Your task to perform on an android device: Open sound settings Image 0: 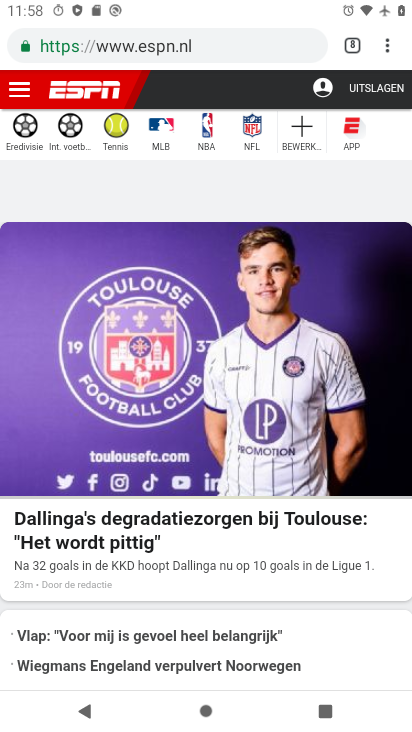
Step 0: press home button
Your task to perform on an android device: Open sound settings Image 1: 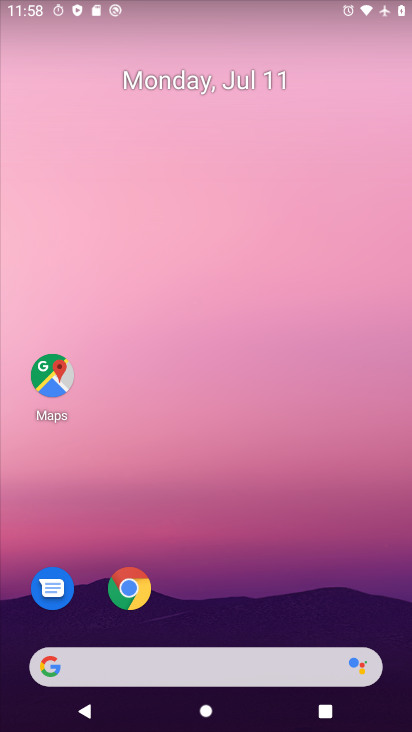
Step 1: drag from (147, 666) to (246, 103)
Your task to perform on an android device: Open sound settings Image 2: 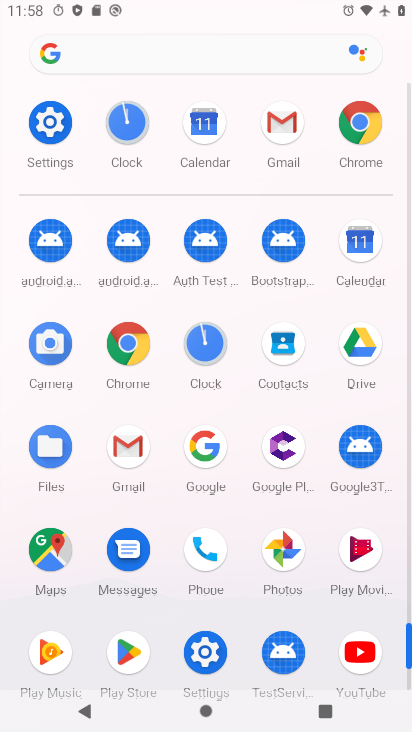
Step 2: click (48, 123)
Your task to perform on an android device: Open sound settings Image 3: 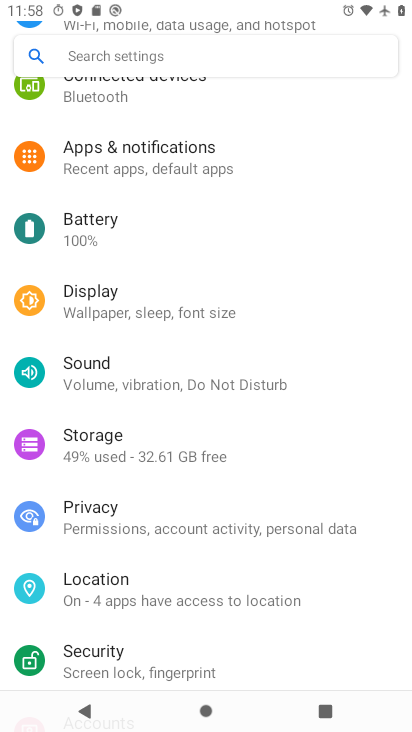
Step 3: click (138, 372)
Your task to perform on an android device: Open sound settings Image 4: 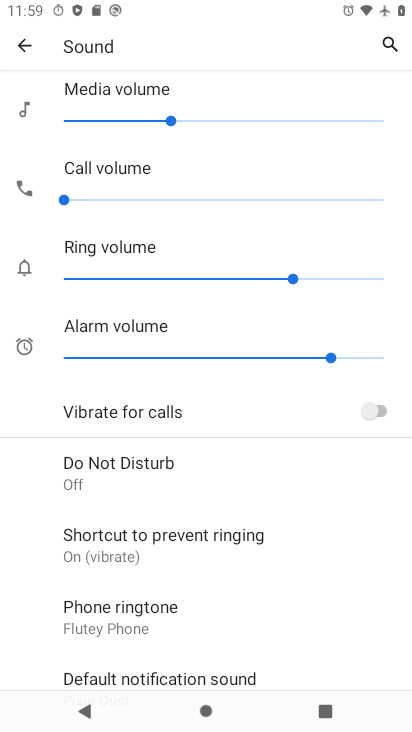
Step 4: task complete